Your task to perform on an android device: Go to Yahoo.com Image 0: 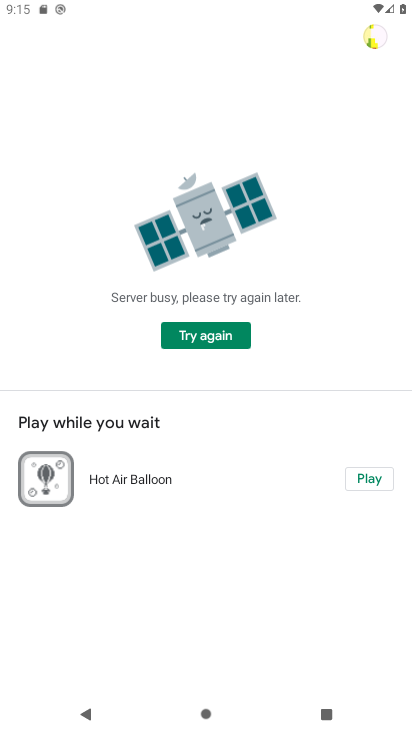
Step 0: press home button
Your task to perform on an android device: Go to Yahoo.com Image 1: 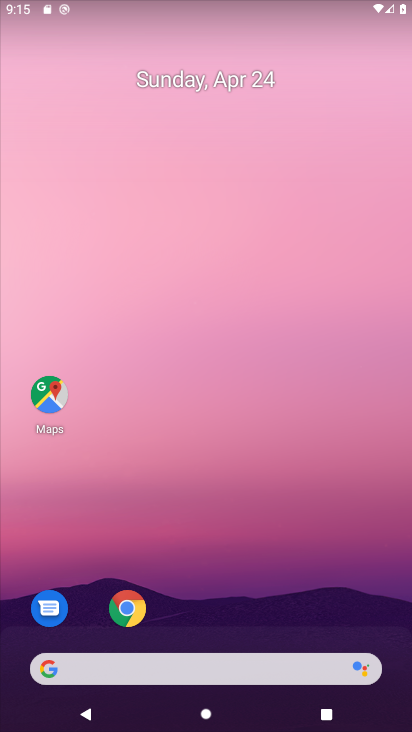
Step 1: drag from (321, 329) to (354, 42)
Your task to perform on an android device: Go to Yahoo.com Image 2: 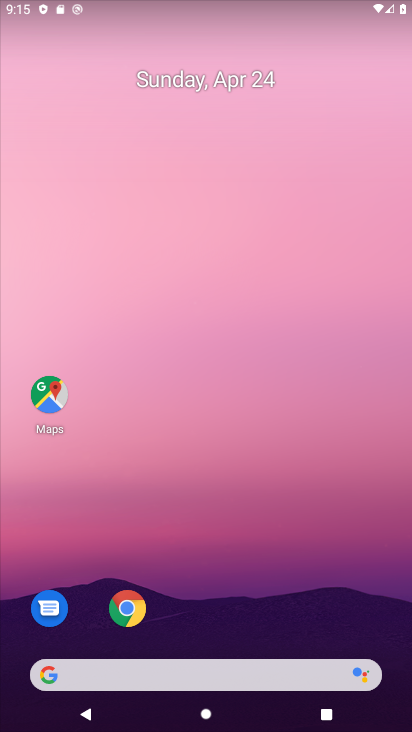
Step 2: drag from (298, 240) to (313, 99)
Your task to perform on an android device: Go to Yahoo.com Image 3: 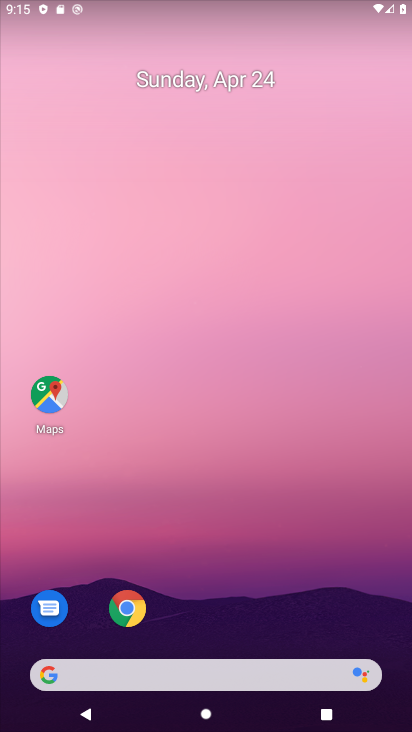
Step 3: drag from (323, 331) to (304, 6)
Your task to perform on an android device: Go to Yahoo.com Image 4: 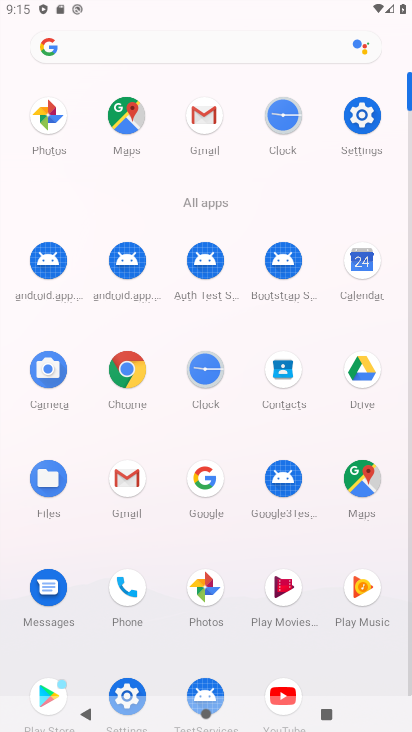
Step 4: click (124, 380)
Your task to perform on an android device: Go to Yahoo.com Image 5: 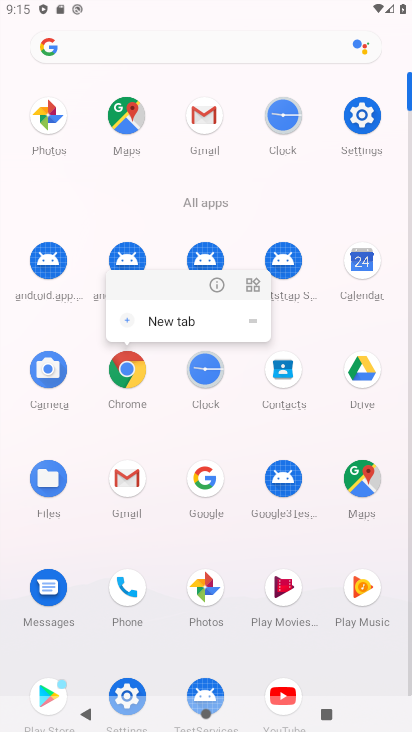
Step 5: click (123, 380)
Your task to perform on an android device: Go to Yahoo.com Image 6: 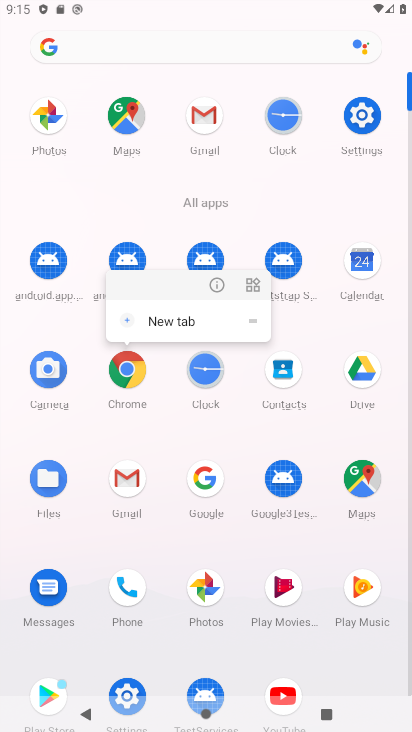
Step 6: click (123, 379)
Your task to perform on an android device: Go to Yahoo.com Image 7: 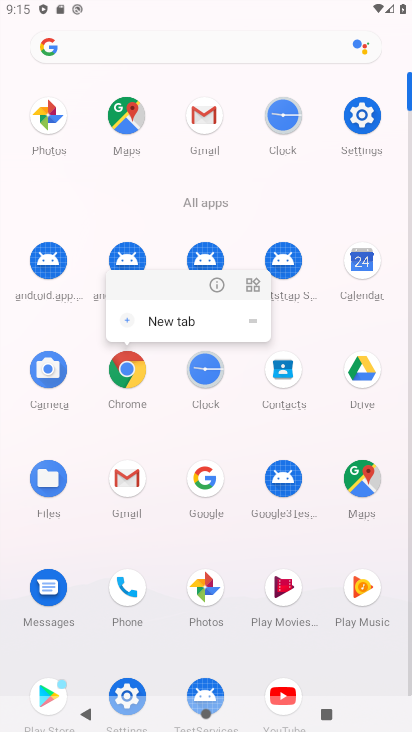
Step 7: click (123, 379)
Your task to perform on an android device: Go to Yahoo.com Image 8: 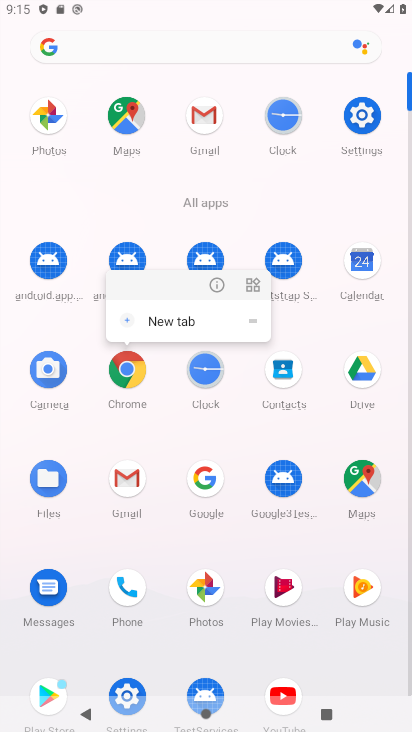
Step 8: click (123, 378)
Your task to perform on an android device: Go to Yahoo.com Image 9: 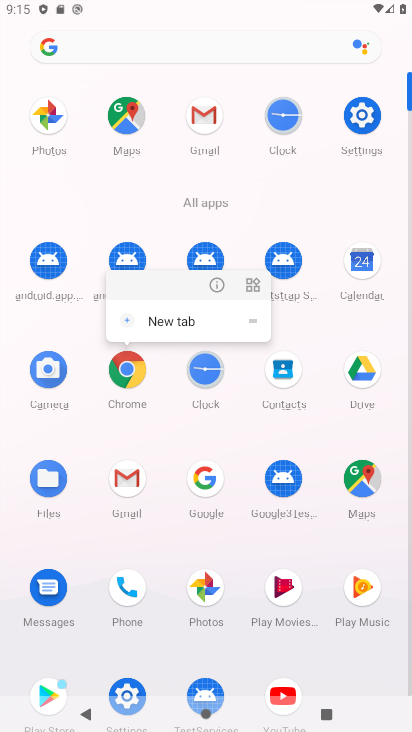
Step 9: click (123, 377)
Your task to perform on an android device: Go to Yahoo.com Image 10: 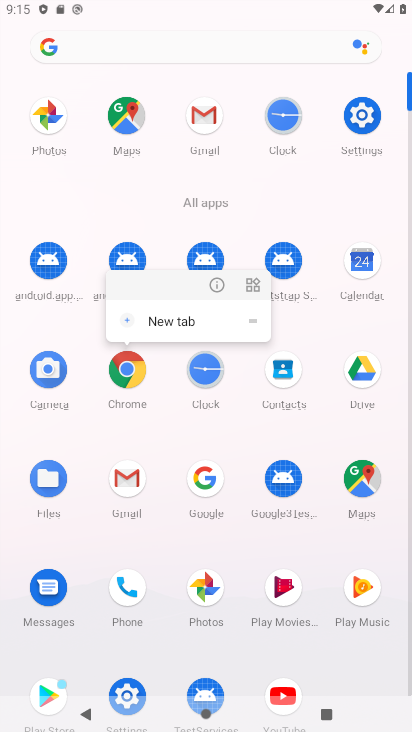
Step 10: click (123, 377)
Your task to perform on an android device: Go to Yahoo.com Image 11: 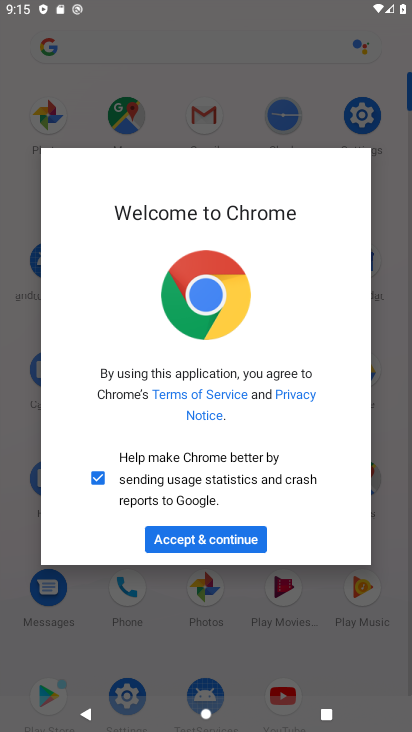
Step 11: click (215, 541)
Your task to perform on an android device: Go to Yahoo.com Image 12: 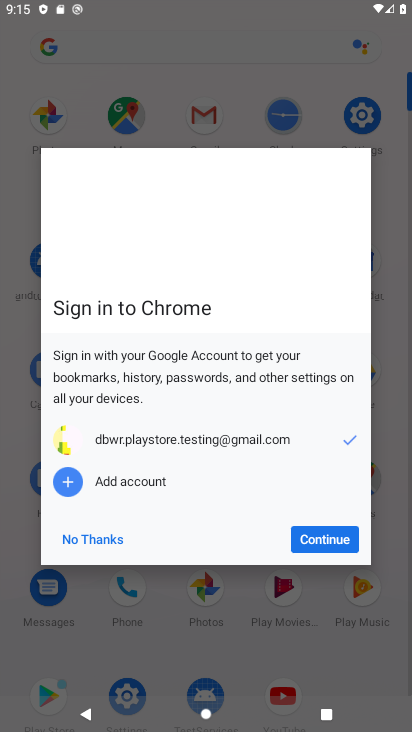
Step 12: click (70, 549)
Your task to perform on an android device: Go to Yahoo.com Image 13: 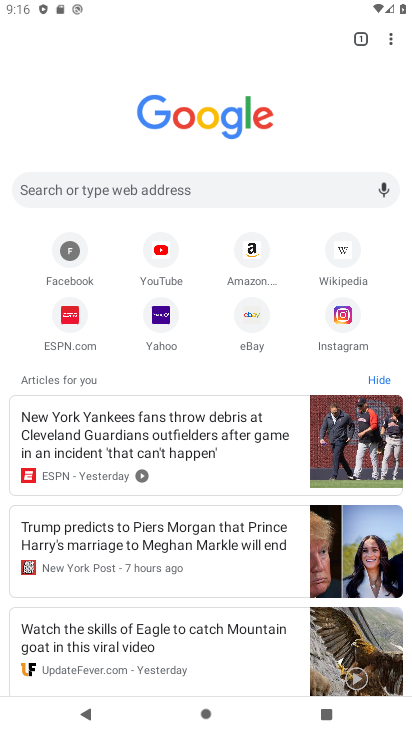
Step 13: click (150, 319)
Your task to perform on an android device: Go to Yahoo.com Image 14: 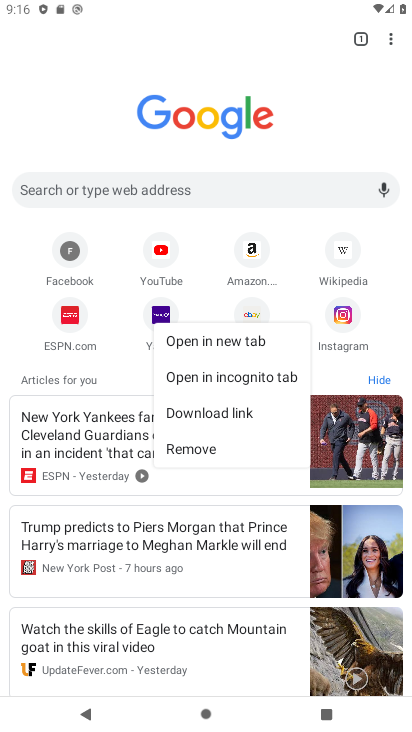
Step 14: click (156, 312)
Your task to perform on an android device: Go to Yahoo.com Image 15: 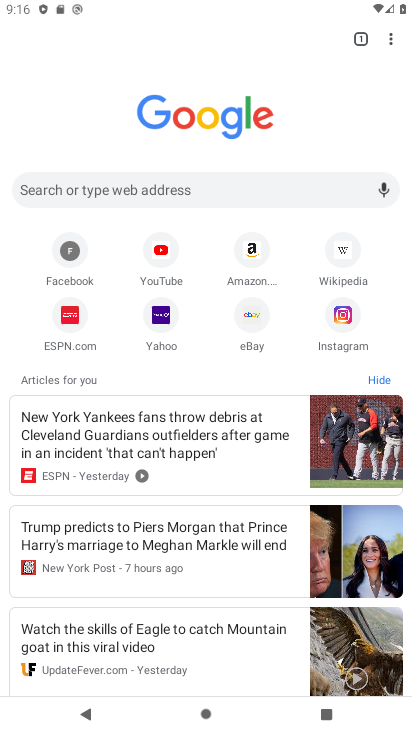
Step 15: click (158, 322)
Your task to perform on an android device: Go to Yahoo.com Image 16: 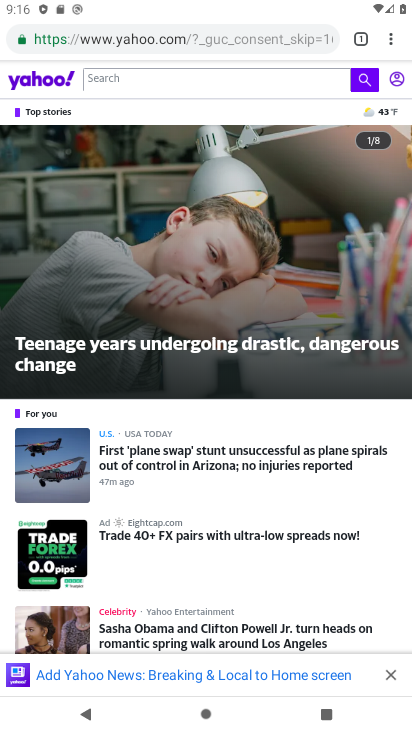
Step 16: task complete